Your task to perform on an android device: toggle data saver in the chrome app Image 0: 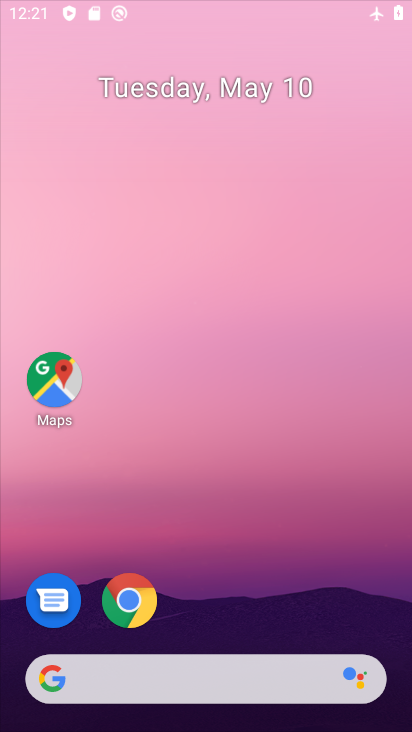
Step 0: drag from (235, 591) to (255, 95)
Your task to perform on an android device: toggle data saver in the chrome app Image 1: 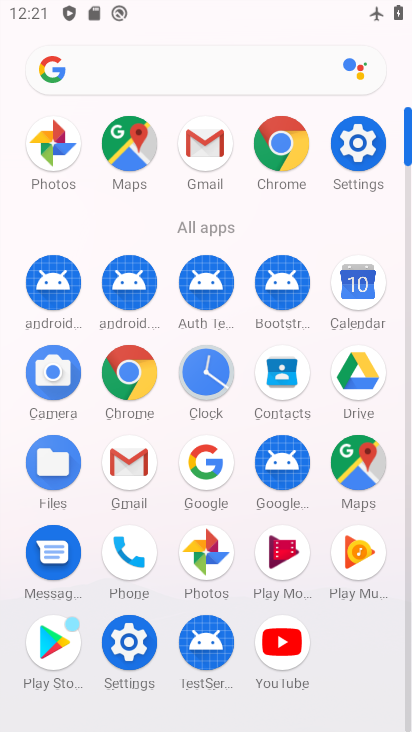
Step 1: click (293, 140)
Your task to perform on an android device: toggle data saver in the chrome app Image 2: 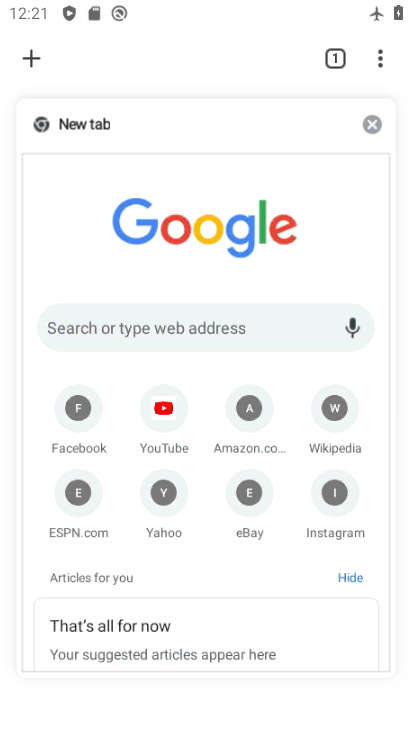
Step 2: click (124, 175)
Your task to perform on an android device: toggle data saver in the chrome app Image 3: 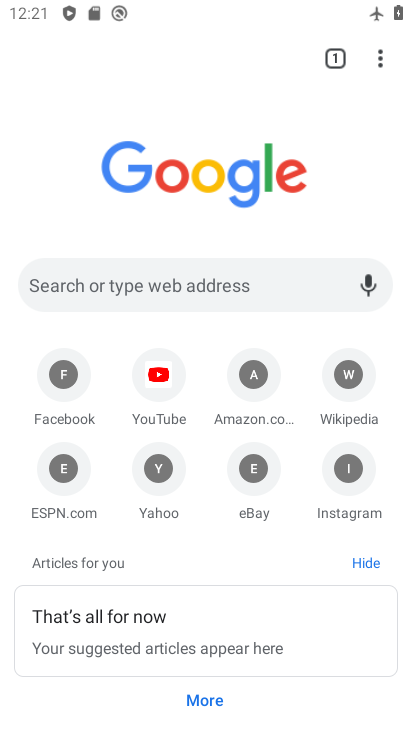
Step 3: click (374, 57)
Your task to perform on an android device: toggle data saver in the chrome app Image 4: 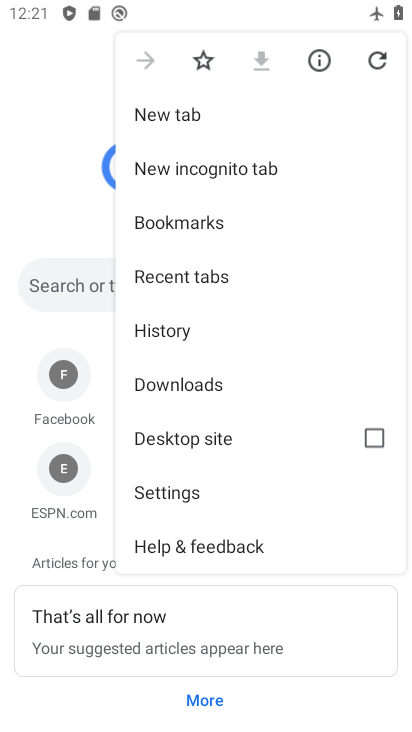
Step 4: click (197, 497)
Your task to perform on an android device: toggle data saver in the chrome app Image 5: 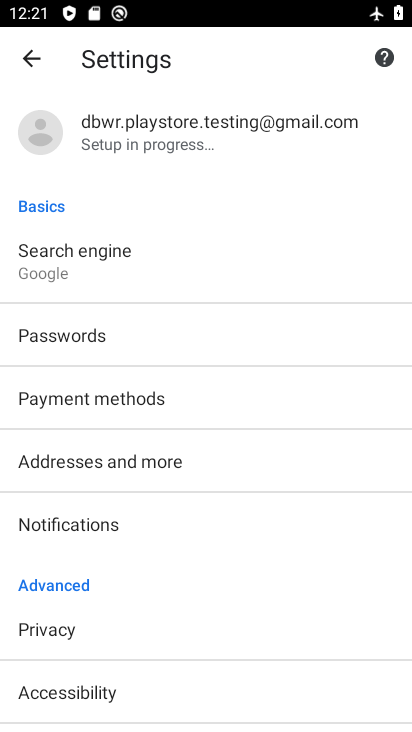
Step 5: drag from (197, 498) to (204, 118)
Your task to perform on an android device: toggle data saver in the chrome app Image 6: 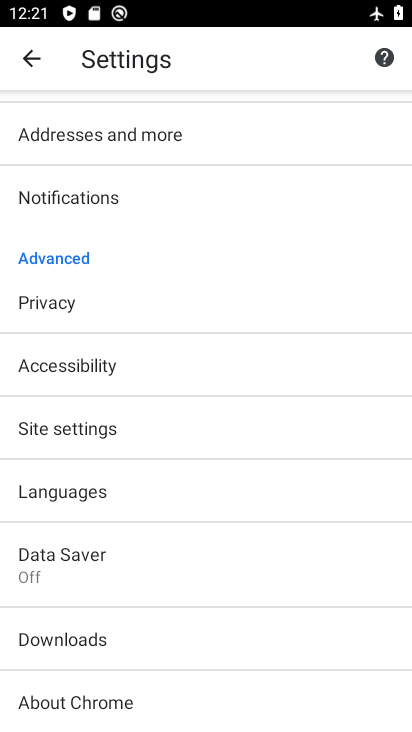
Step 6: click (161, 573)
Your task to perform on an android device: toggle data saver in the chrome app Image 7: 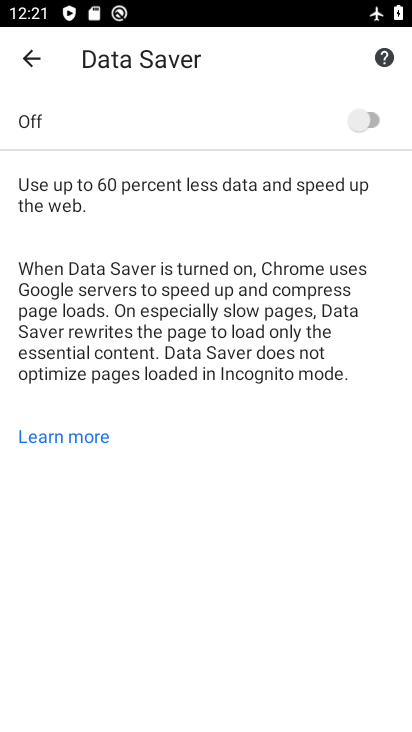
Step 7: click (366, 115)
Your task to perform on an android device: toggle data saver in the chrome app Image 8: 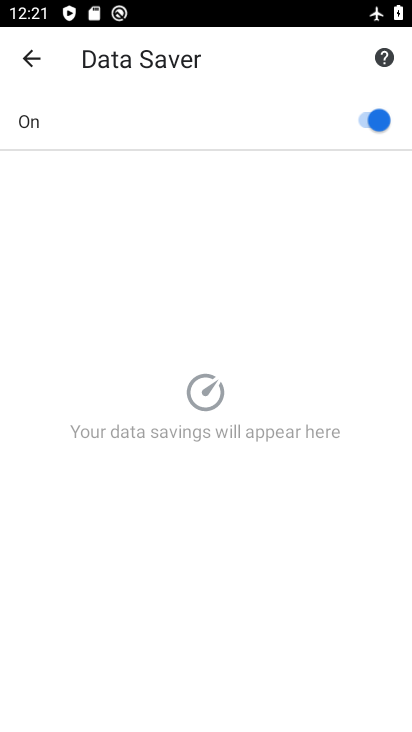
Step 8: task complete